Your task to perform on an android device: open wifi settings Image 0: 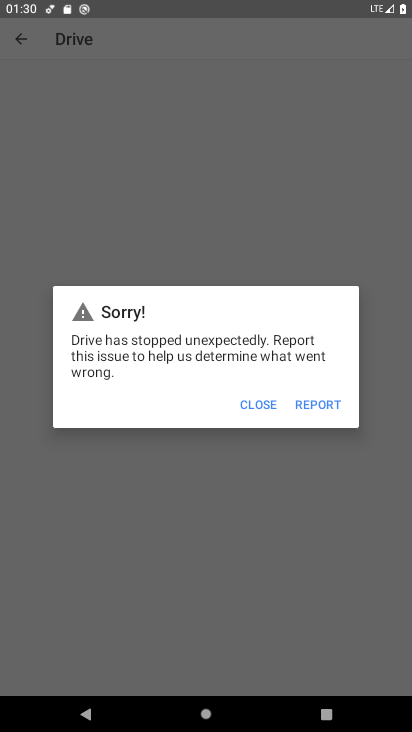
Step 0: press home button
Your task to perform on an android device: open wifi settings Image 1: 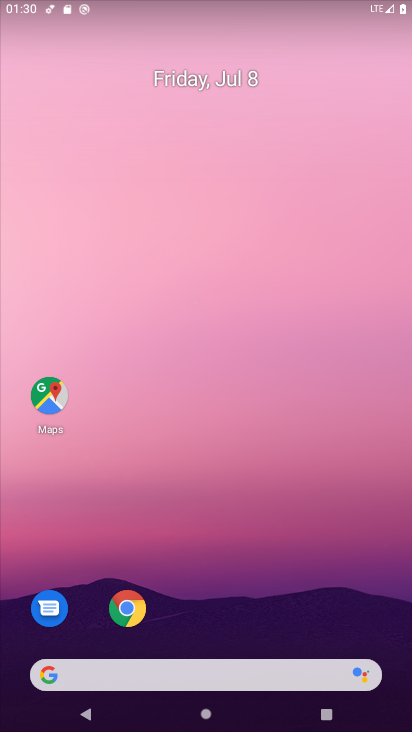
Step 1: drag from (218, 658) to (219, 317)
Your task to perform on an android device: open wifi settings Image 2: 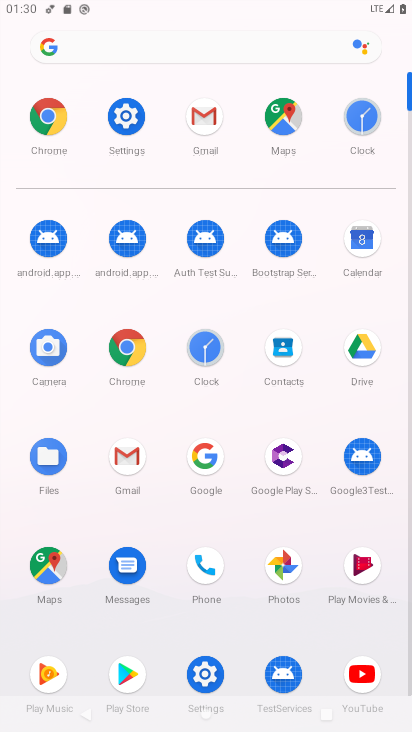
Step 2: click (106, 104)
Your task to perform on an android device: open wifi settings Image 3: 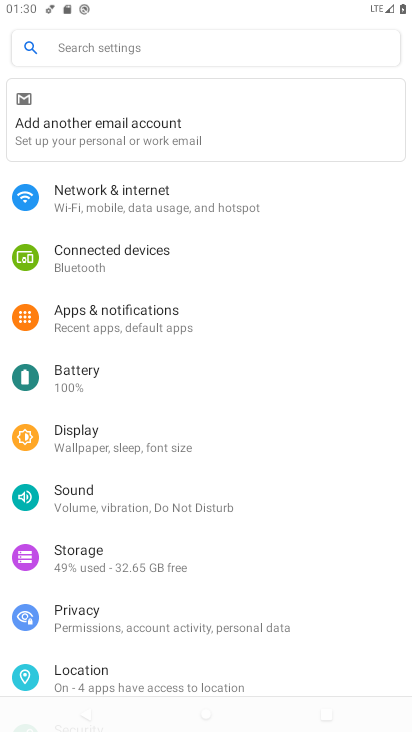
Step 3: click (135, 199)
Your task to perform on an android device: open wifi settings Image 4: 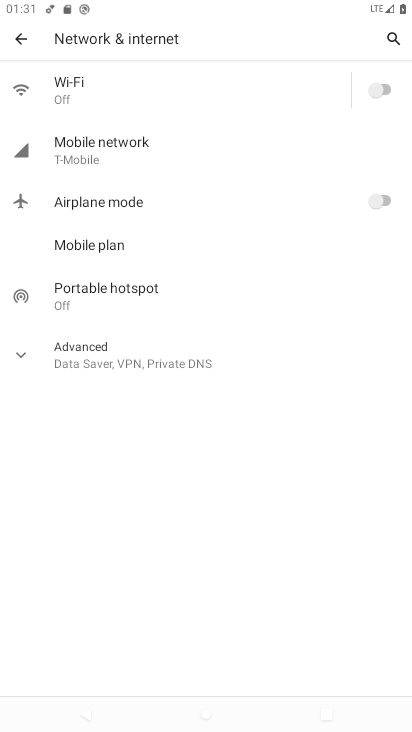
Step 4: click (116, 92)
Your task to perform on an android device: open wifi settings Image 5: 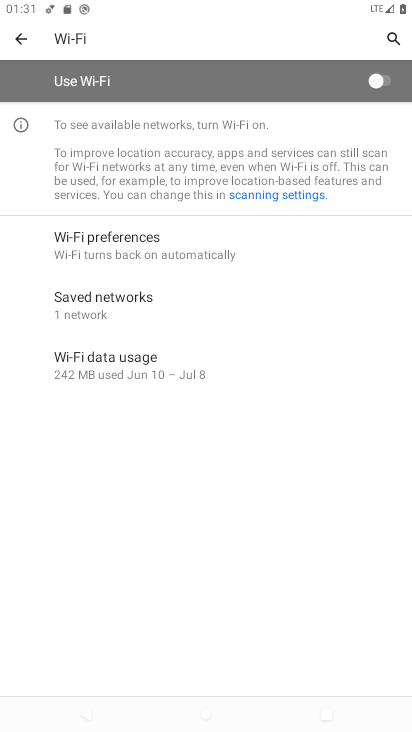
Step 5: task complete